Your task to perform on an android device: set default search engine in the chrome app Image 0: 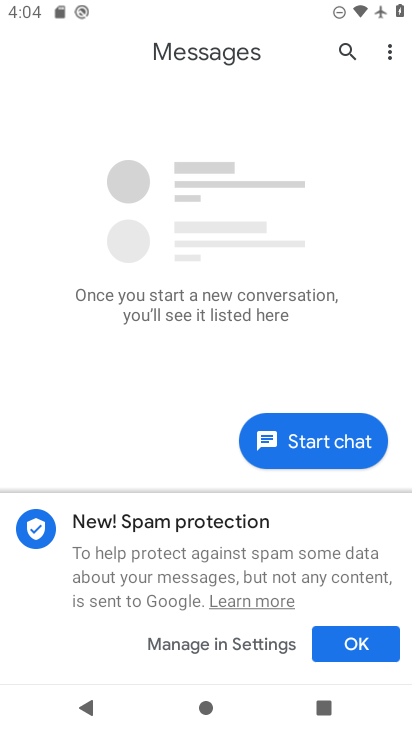
Step 0: press home button
Your task to perform on an android device: set default search engine in the chrome app Image 1: 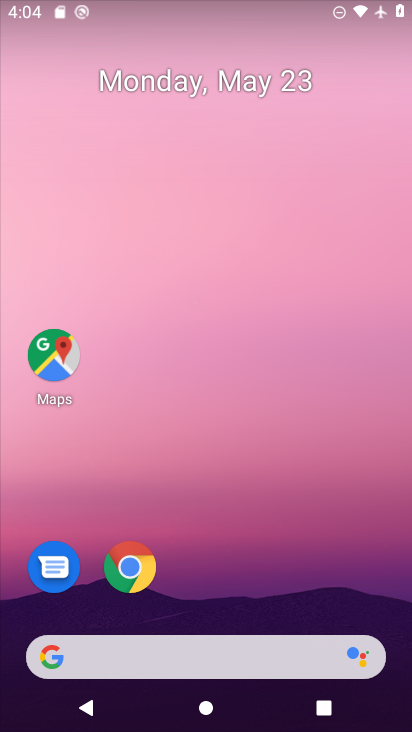
Step 1: click (133, 567)
Your task to perform on an android device: set default search engine in the chrome app Image 2: 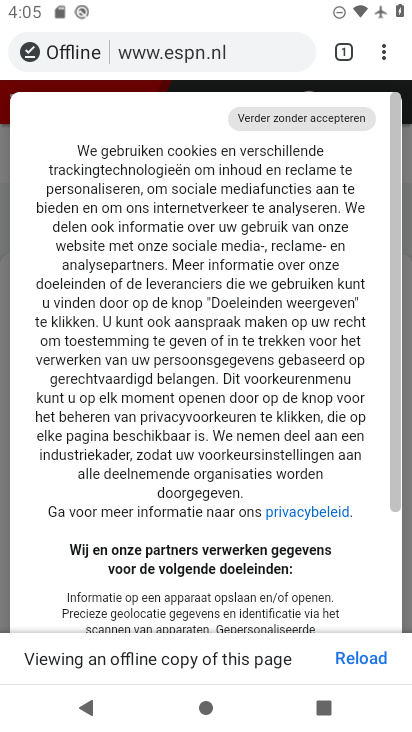
Step 2: click (378, 56)
Your task to perform on an android device: set default search engine in the chrome app Image 3: 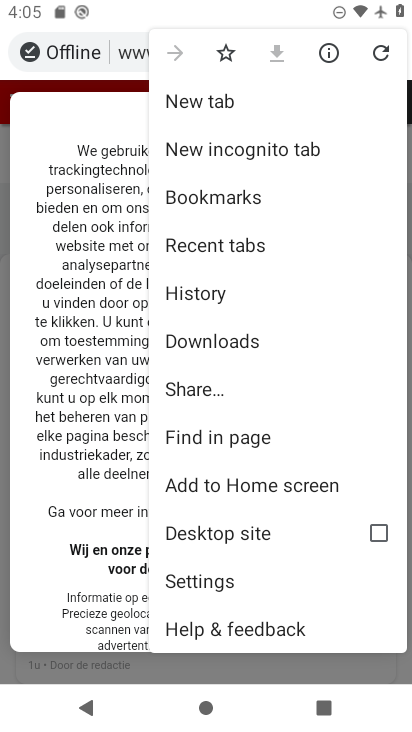
Step 3: click (242, 580)
Your task to perform on an android device: set default search engine in the chrome app Image 4: 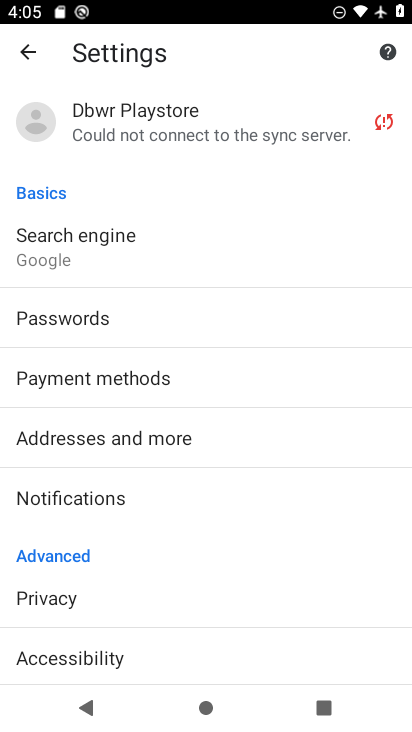
Step 4: click (49, 234)
Your task to perform on an android device: set default search engine in the chrome app Image 5: 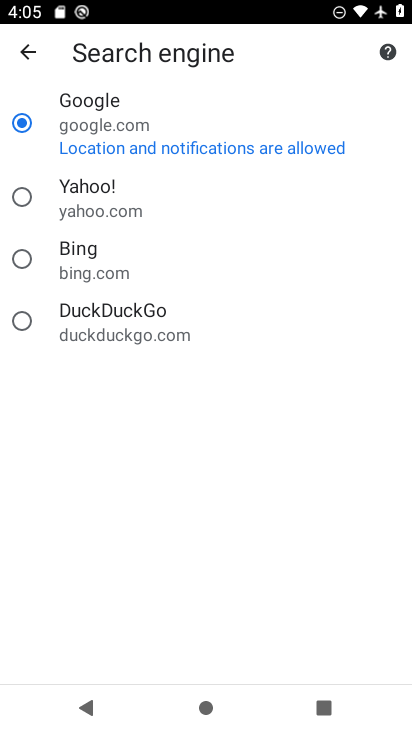
Step 5: click (94, 197)
Your task to perform on an android device: set default search engine in the chrome app Image 6: 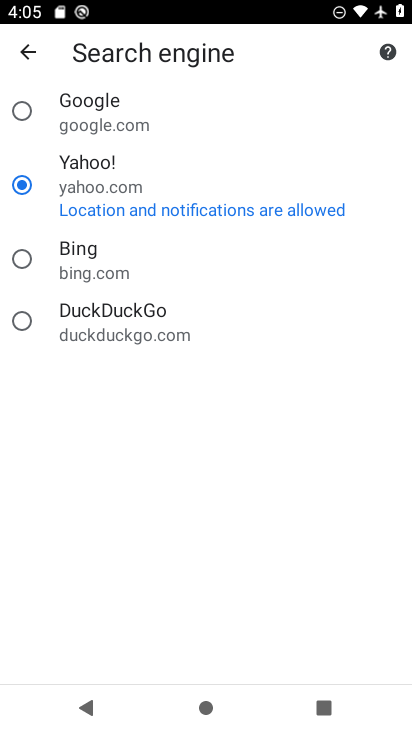
Step 6: task complete